Your task to perform on an android device: open sync settings in chrome Image 0: 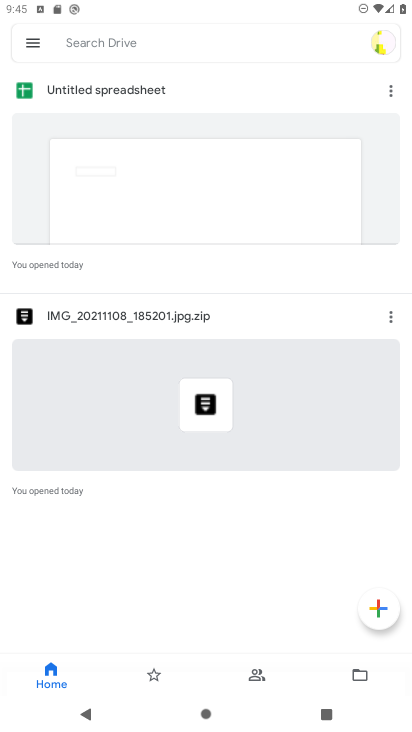
Step 0: press home button
Your task to perform on an android device: open sync settings in chrome Image 1: 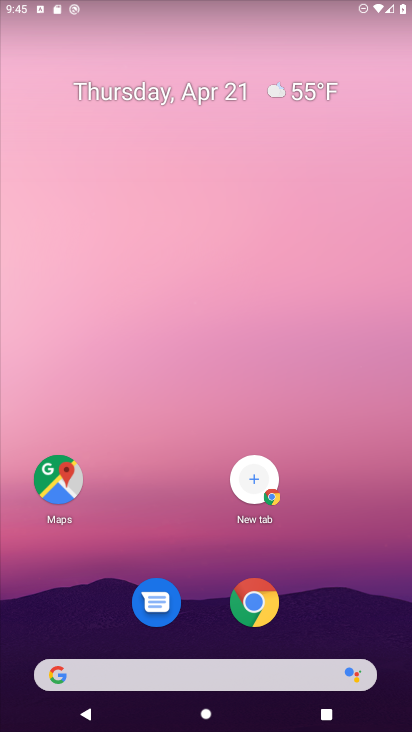
Step 1: click (256, 600)
Your task to perform on an android device: open sync settings in chrome Image 2: 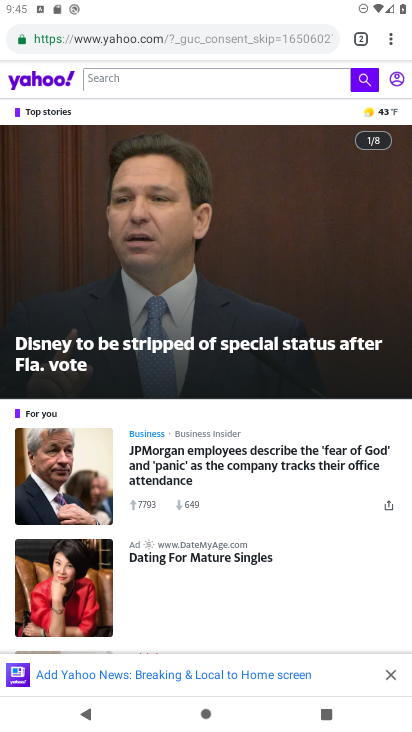
Step 2: click (394, 41)
Your task to perform on an android device: open sync settings in chrome Image 3: 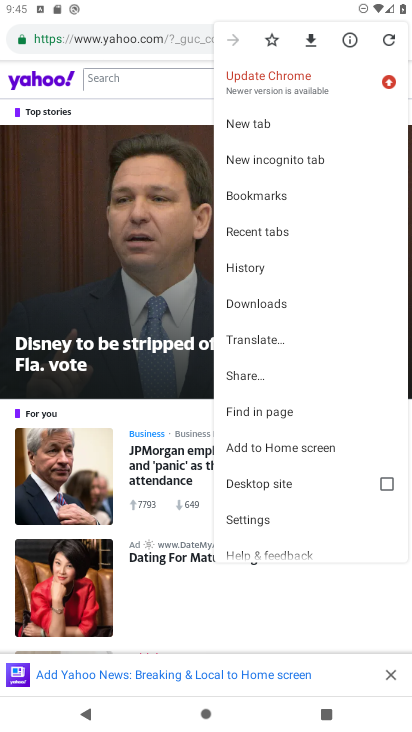
Step 3: click (271, 527)
Your task to perform on an android device: open sync settings in chrome Image 4: 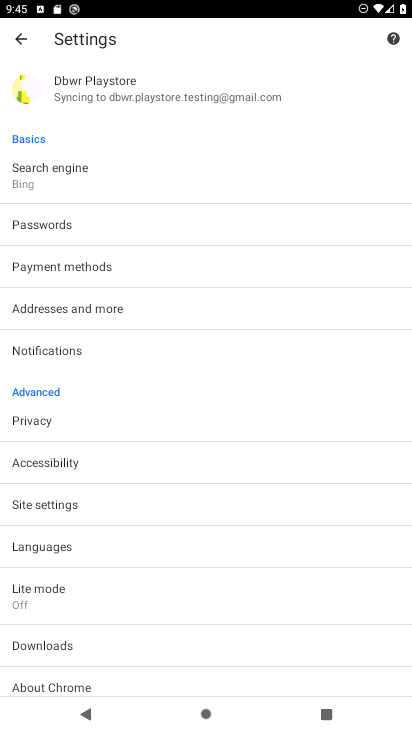
Step 4: click (87, 100)
Your task to perform on an android device: open sync settings in chrome Image 5: 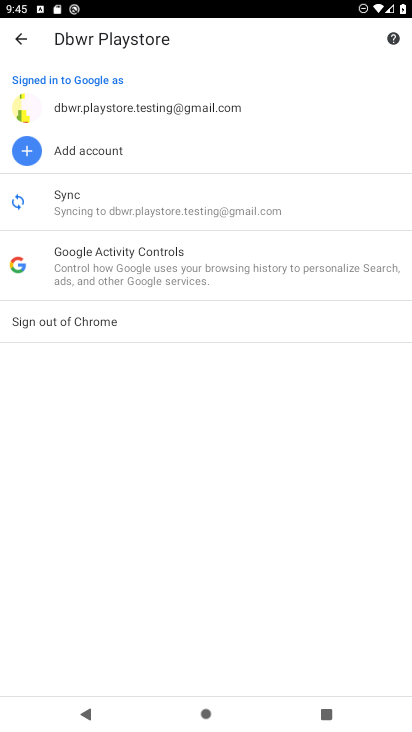
Step 5: click (140, 188)
Your task to perform on an android device: open sync settings in chrome Image 6: 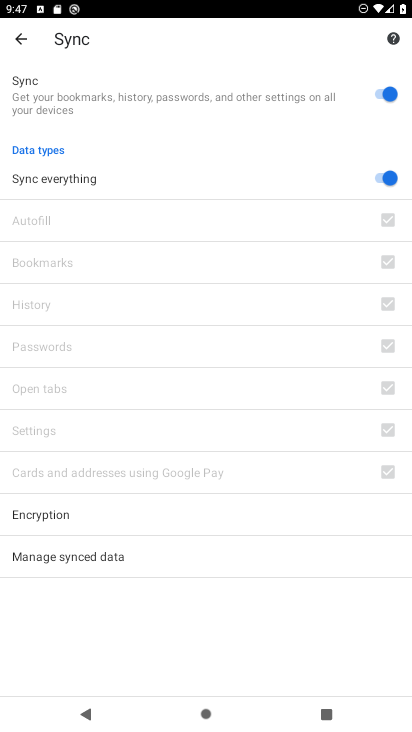
Step 6: task complete